Your task to perform on an android device: Clear the cart on costco. Image 0: 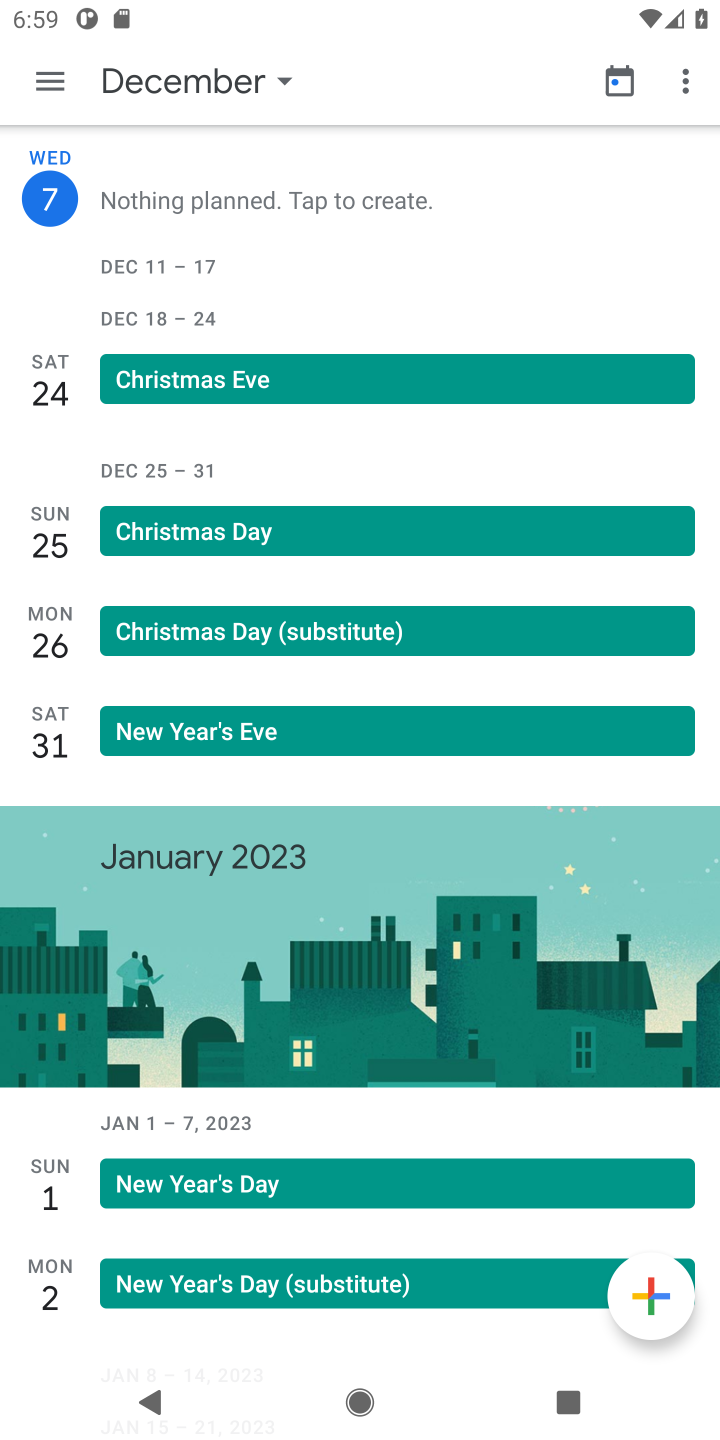
Step 0: press home button
Your task to perform on an android device: Clear the cart on costco. Image 1: 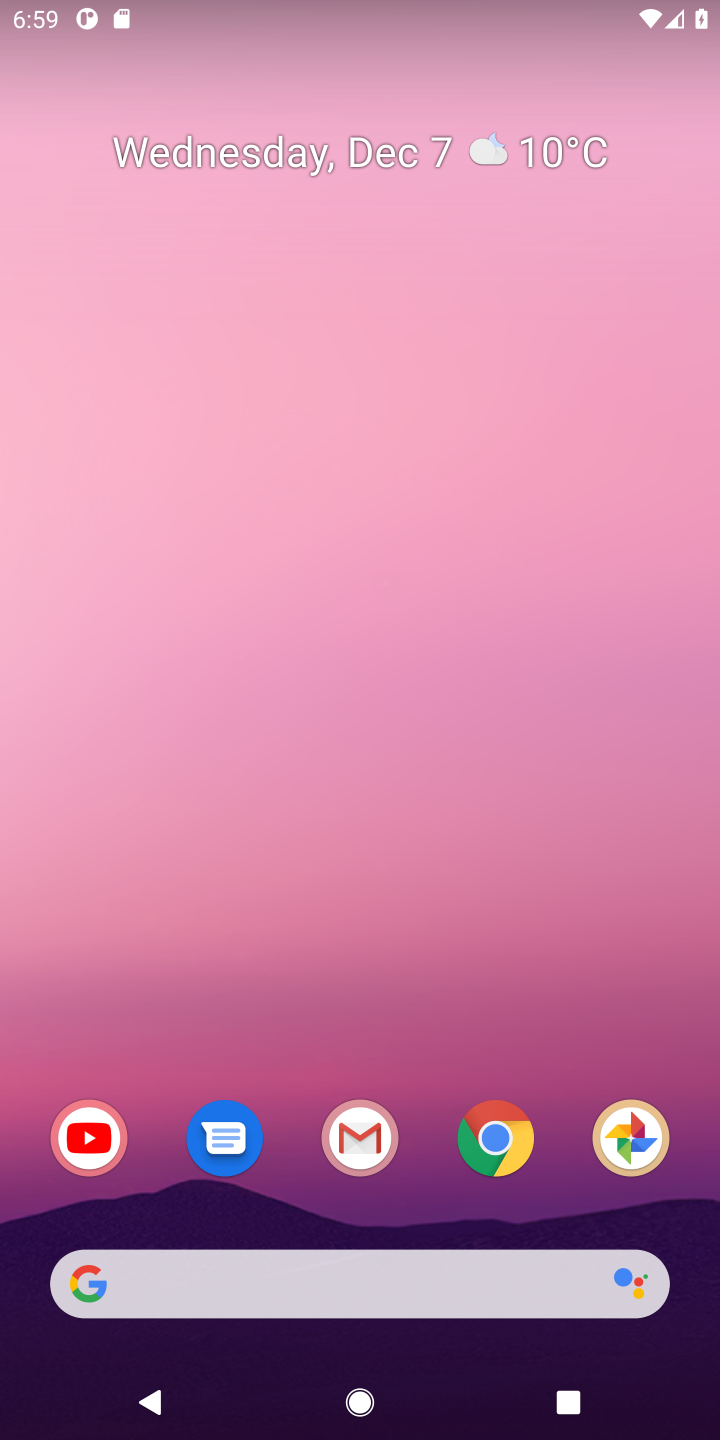
Step 1: click (186, 1282)
Your task to perform on an android device: Clear the cart on costco. Image 2: 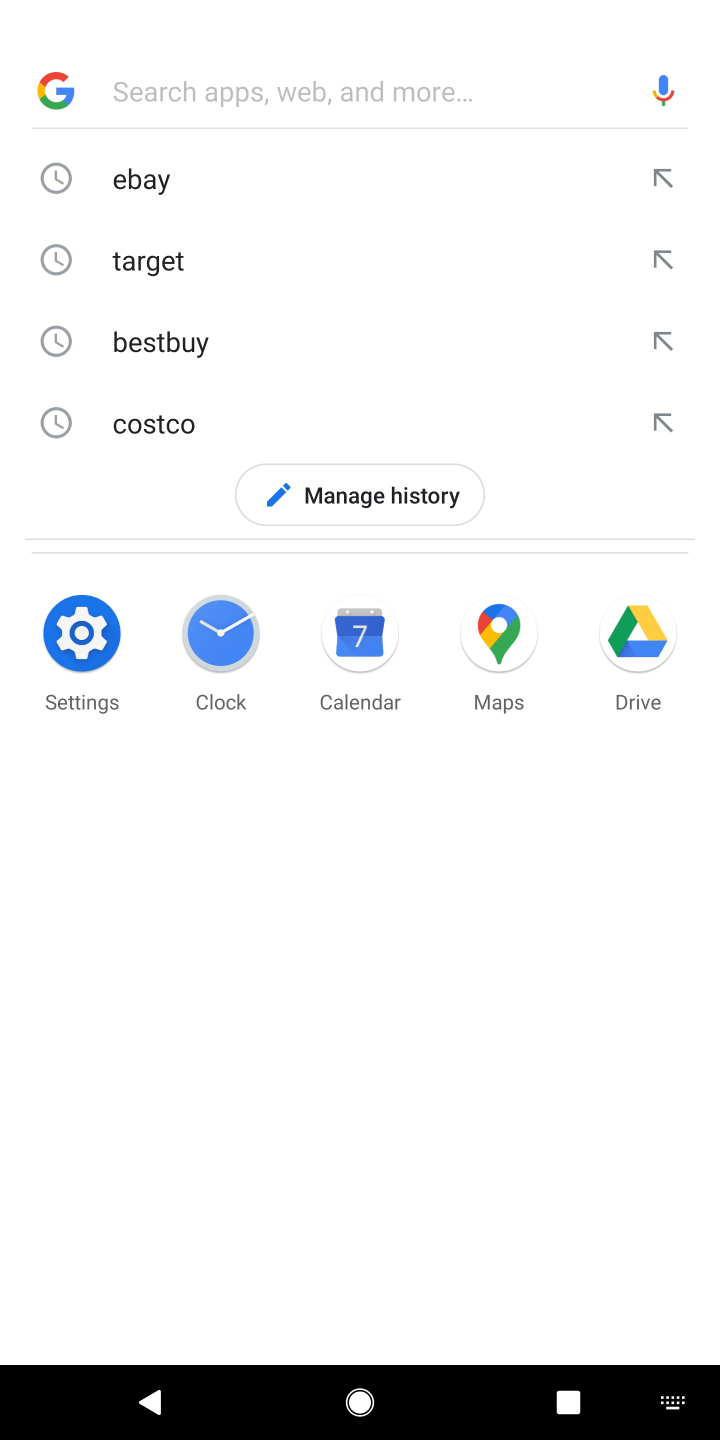
Step 2: press enter
Your task to perform on an android device: Clear the cart on costco. Image 3: 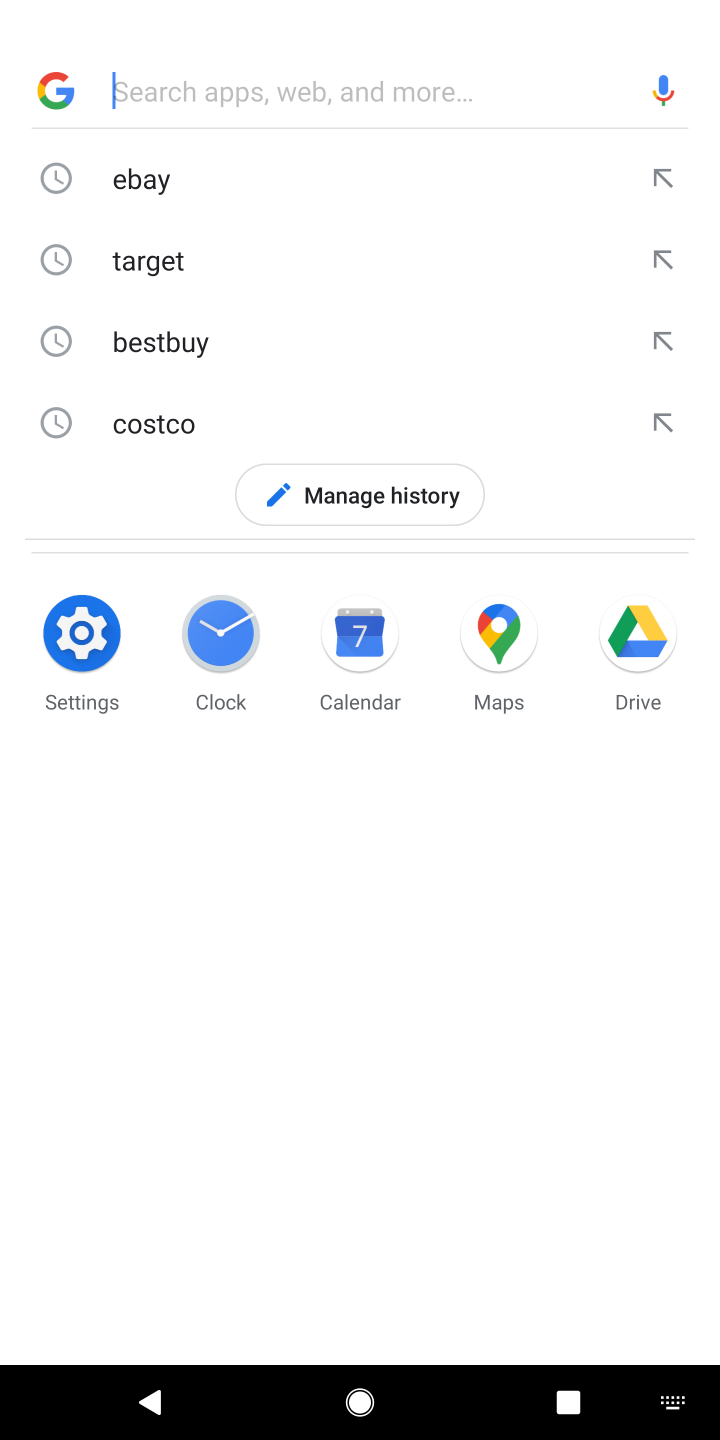
Step 3: type "costco"
Your task to perform on an android device: Clear the cart on costco. Image 4: 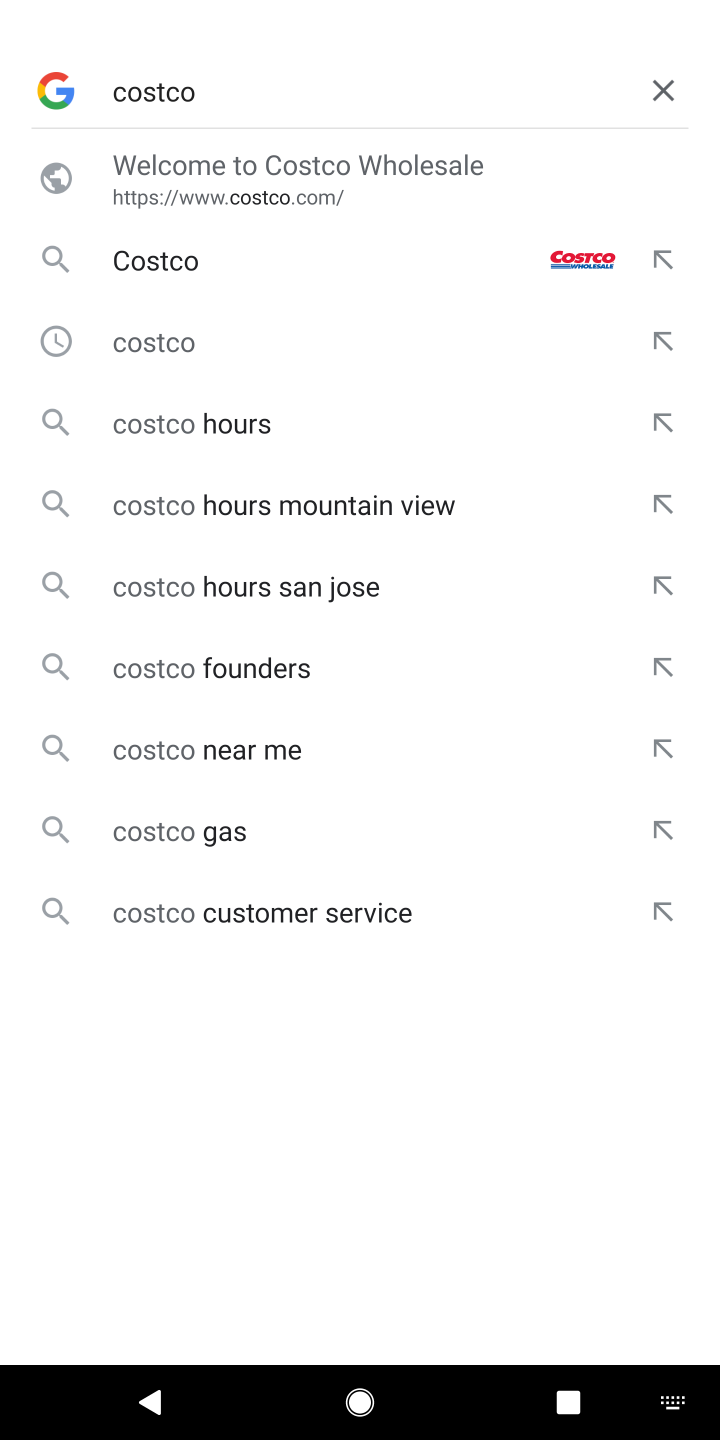
Step 4: press enter
Your task to perform on an android device: Clear the cart on costco. Image 5: 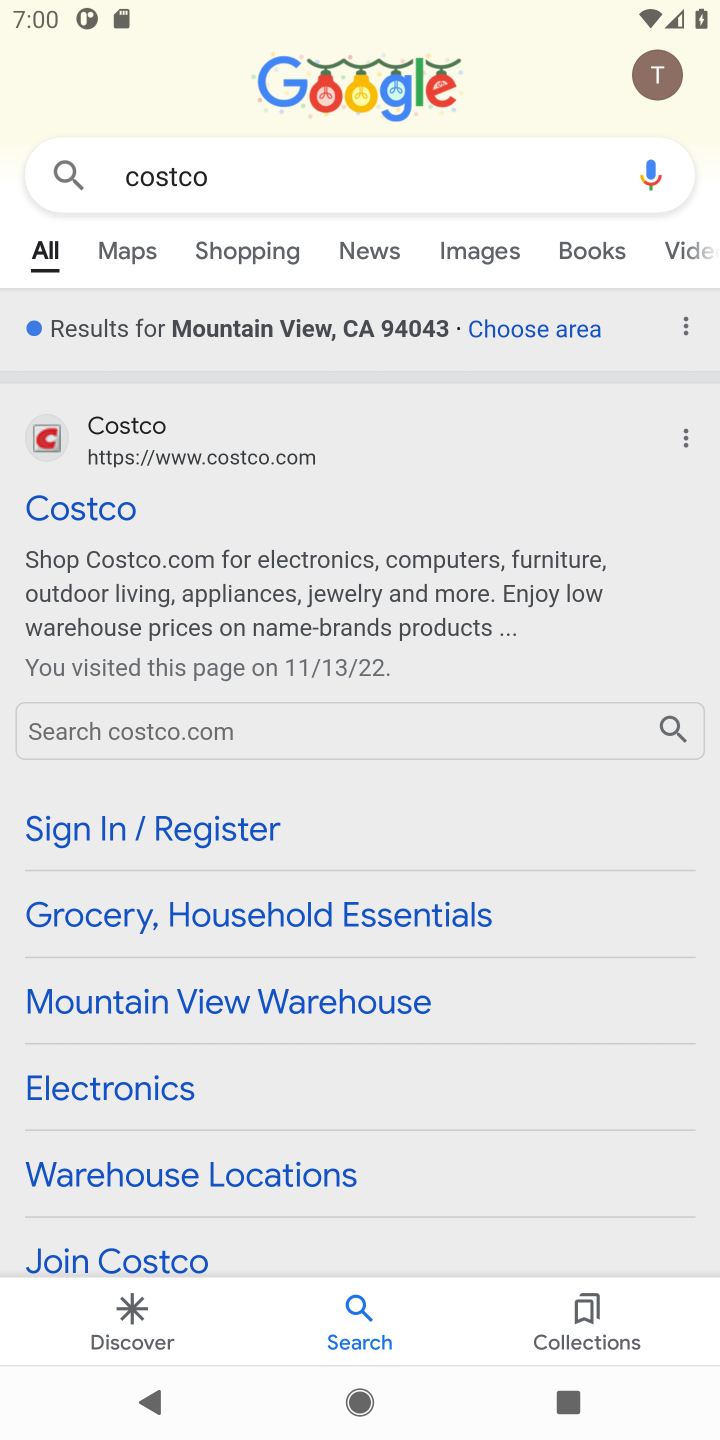
Step 5: click (74, 495)
Your task to perform on an android device: Clear the cart on costco. Image 6: 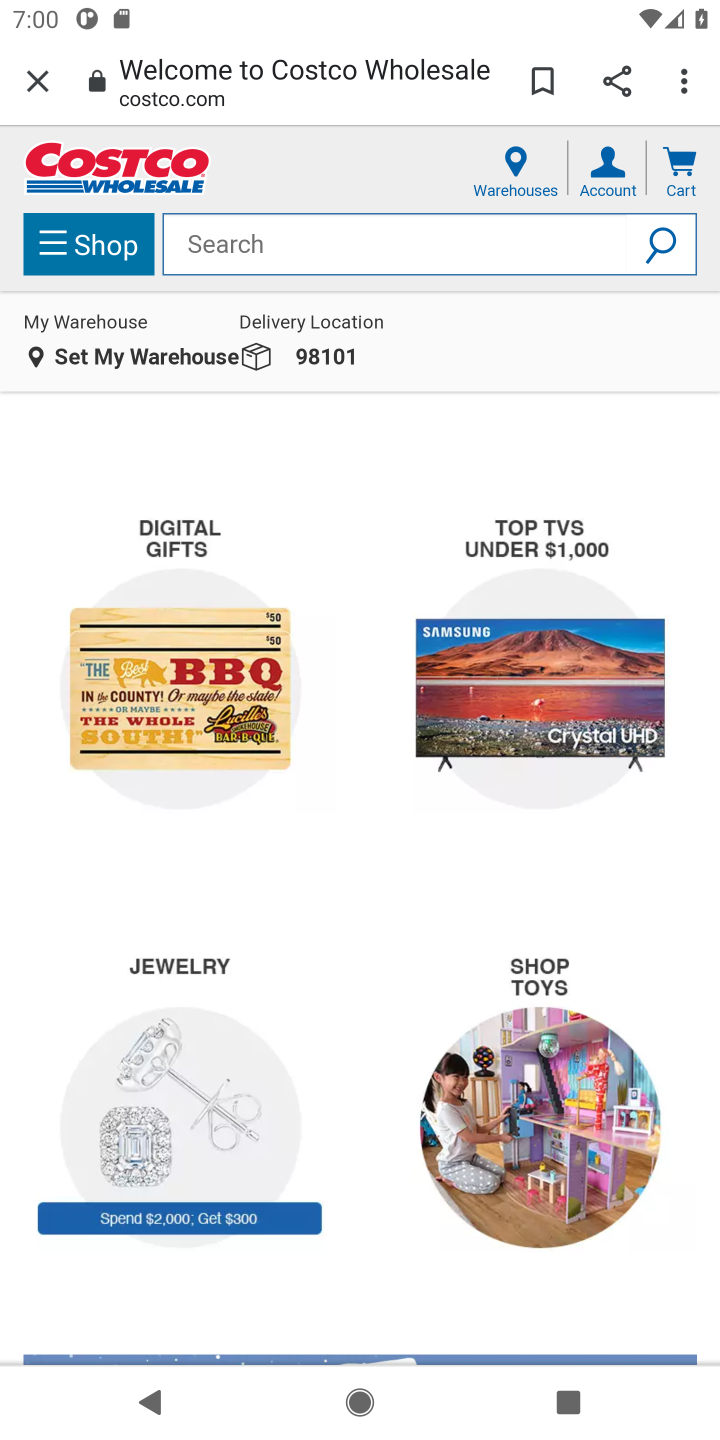
Step 6: click (682, 165)
Your task to perform on an android device: Clear the cart on costco. Image 7: 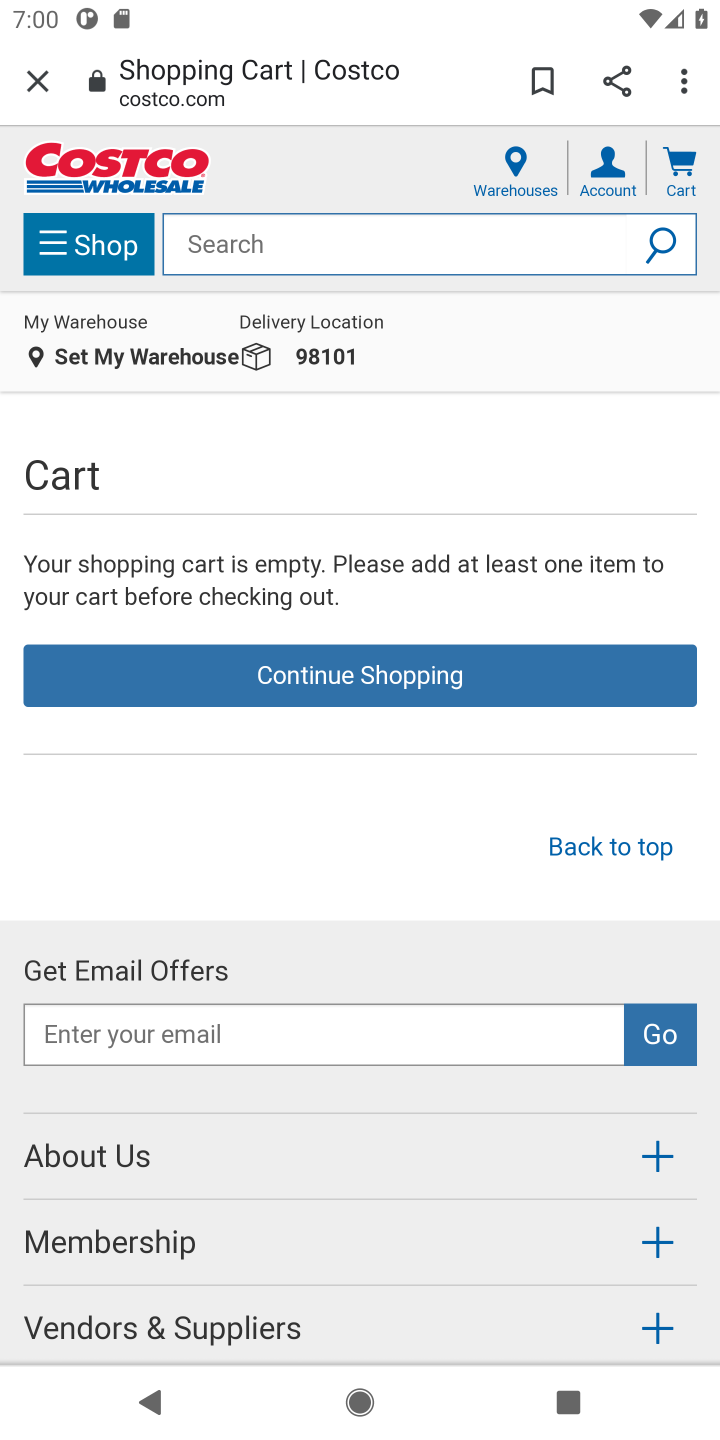
Step 7: task complete